Your task to perform on an android device: Show me popular games on the Play Store Image 0: 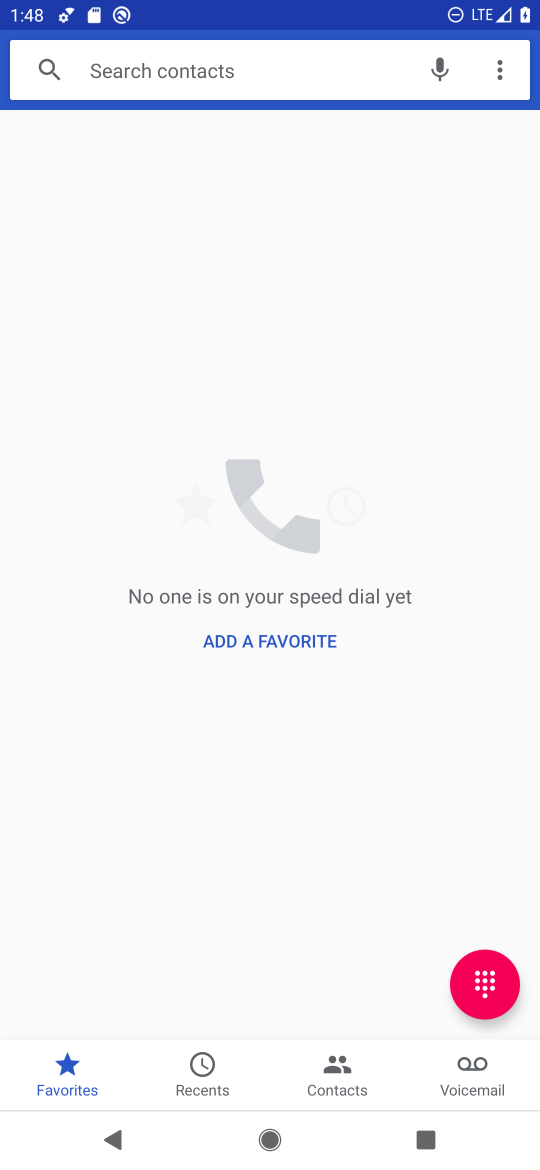
Step 0: press home button
Your task to perform on an android device: Show me popular games on the Play Store Image 1: 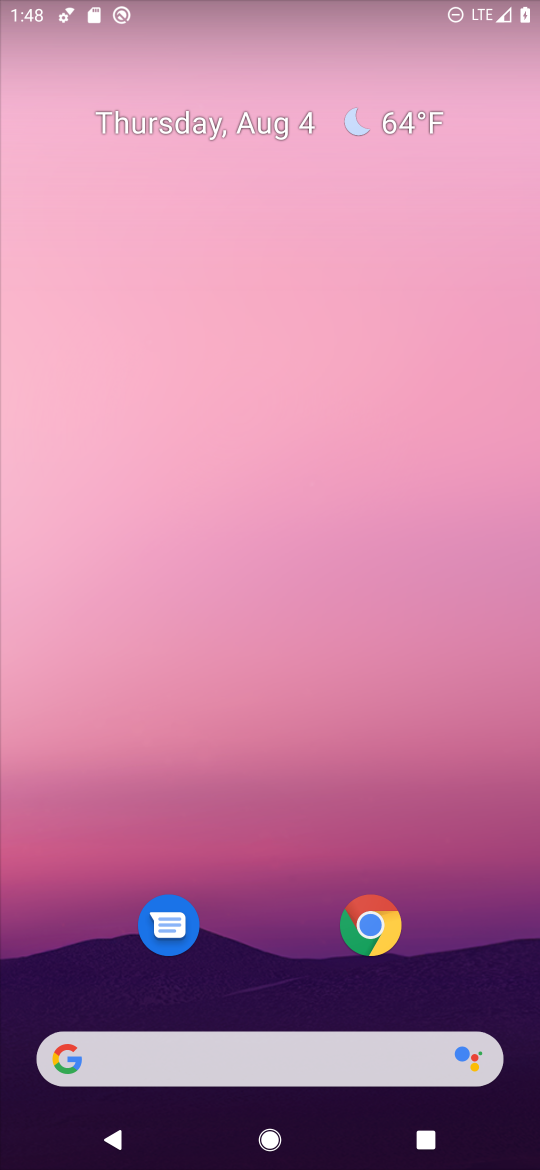
Step 1: drag from (238, 968) to (346, 162)
Your task to perform on an android device: Show me popular games on the Play Store Image 2: 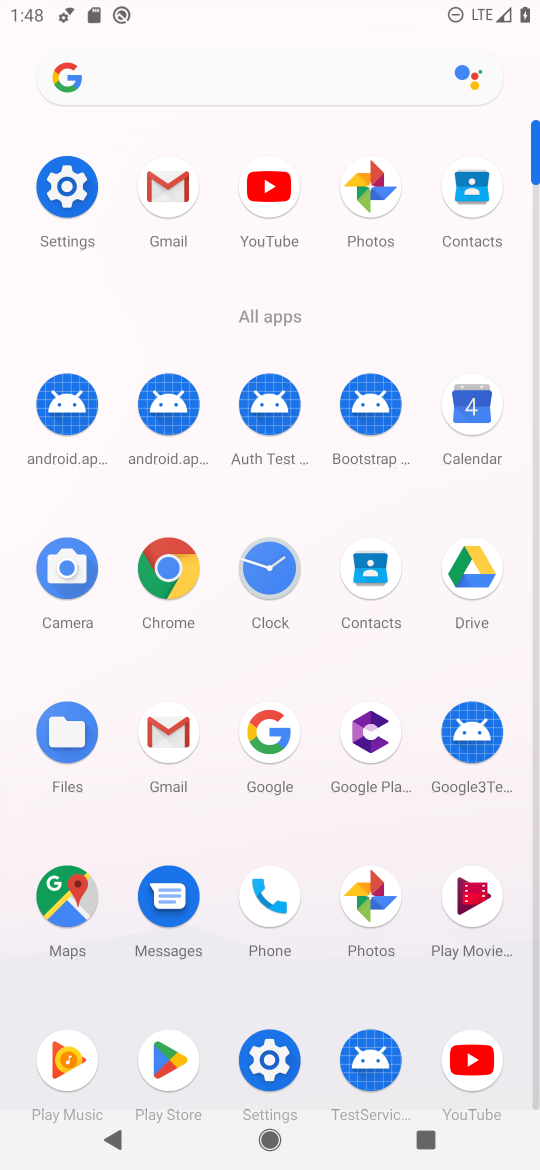
Step 2: click (150, 1050)
Your task to perform on an android device: Show me popular games on the Play Store Image 3: 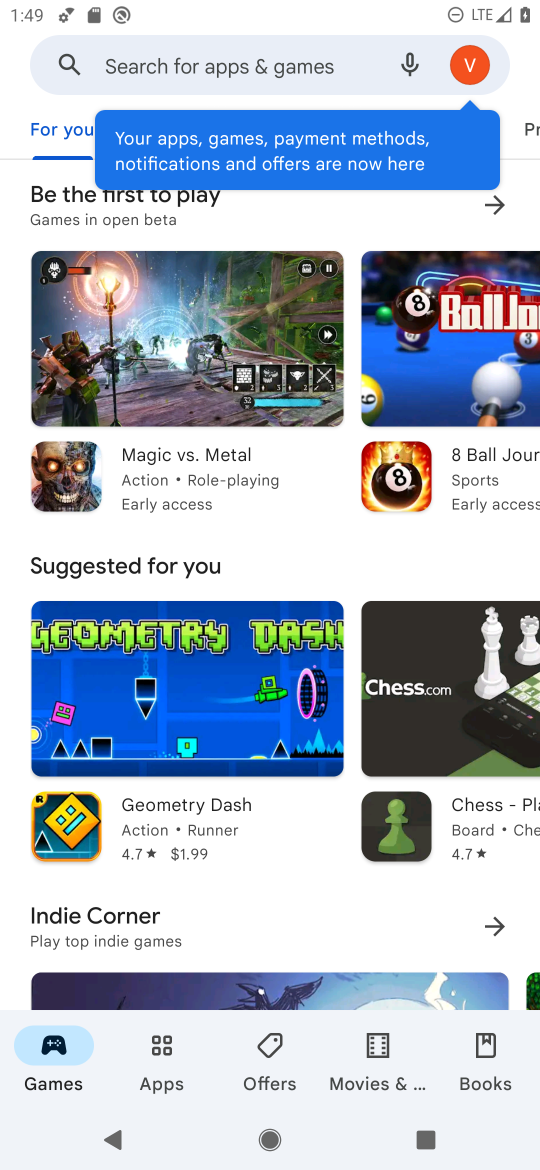
Step 3: click (159, 1049)
Your task to perform on an android device: Show me popular games on the Play Store Image 4: 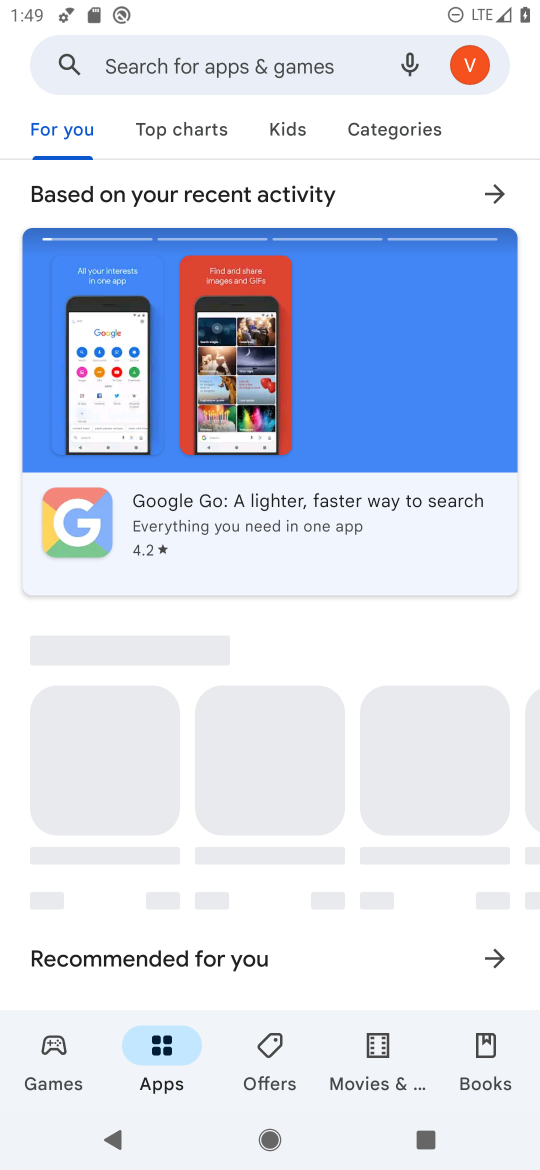
Step 4: click (55, 1046)
Your task to perform on an android device: Show me popular games on the Play Store Image 5: 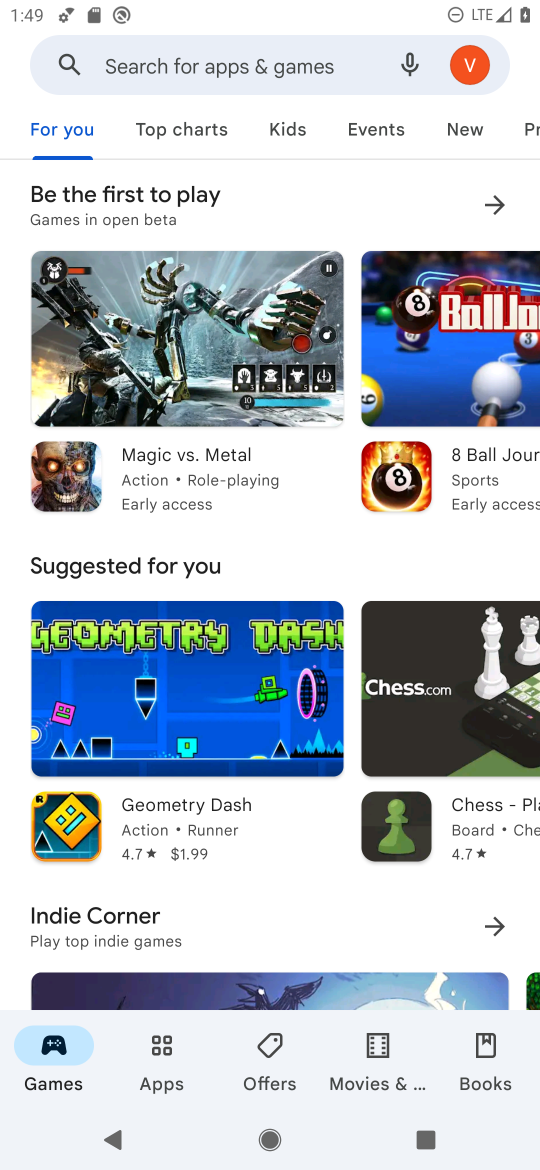
Step 5: drag from (499, 125) to (175, 155)
Your task to perform on an android device: Show me popular games on the Play Store Image 6: 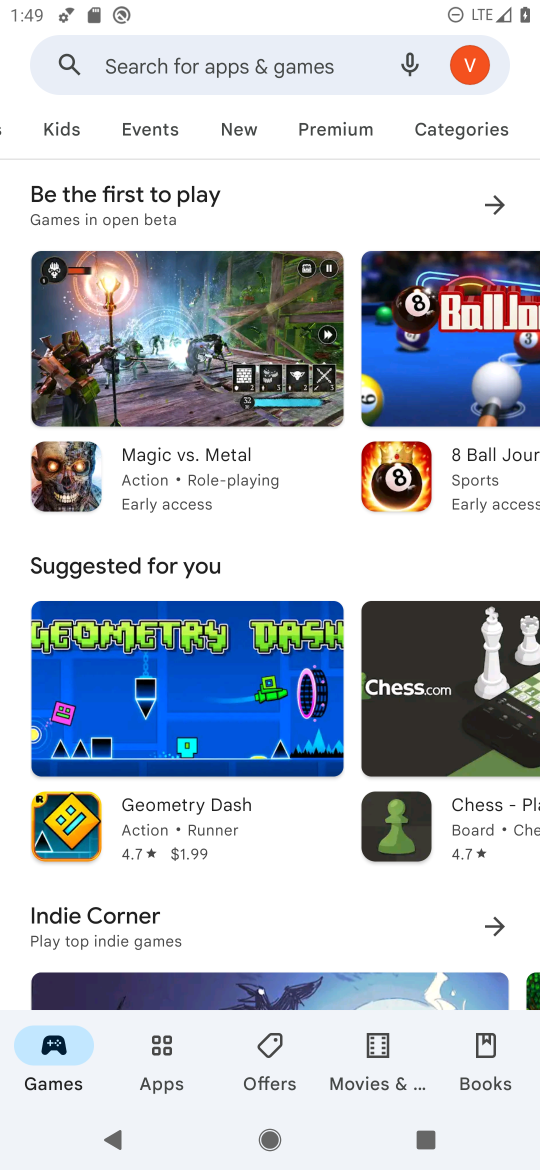
Step 6: drag from (460, 131) to (289, 123)
Your task to perform on an android device: Show me popular games on the Play Store Image 7: 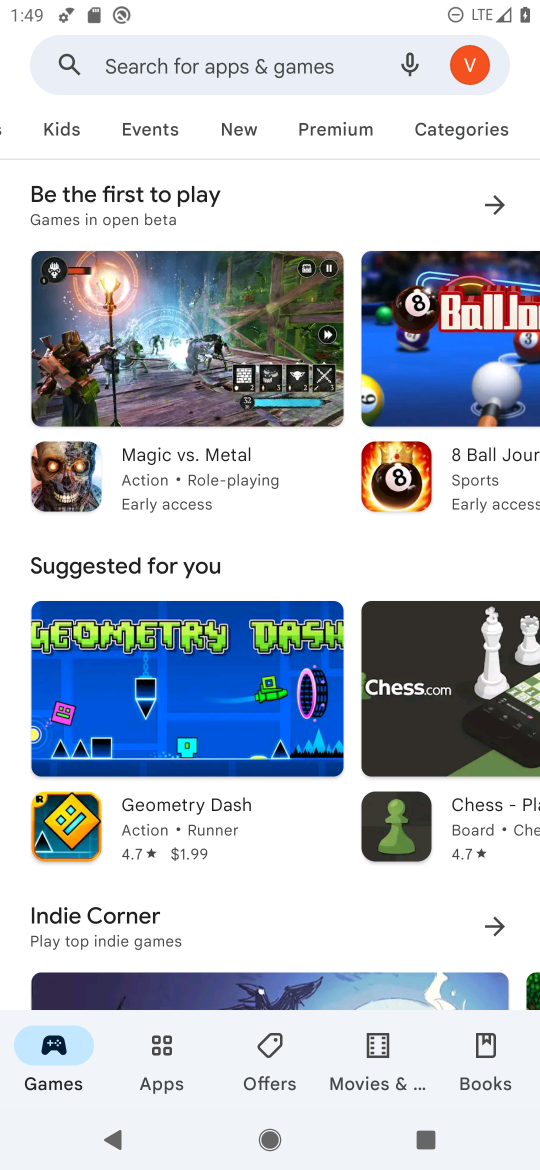
Step 7: click (429, 133)
Your task to perform on an android device: Show me popular games on the Play Store Image 8: 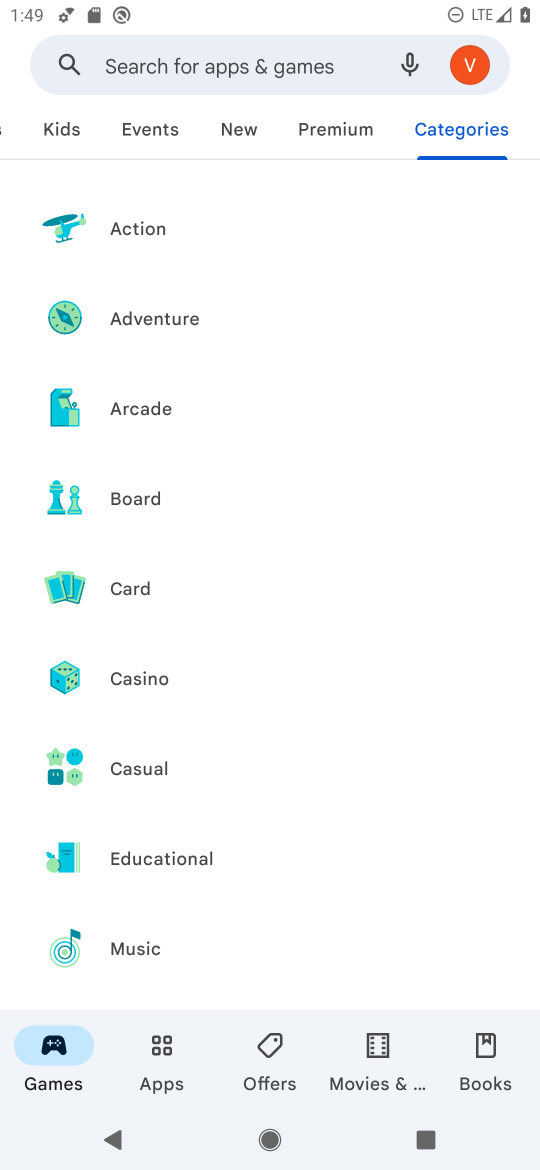
Step 8: drag from (228, 534) to (222, 0)
Your task to perform on an android device: Show me popular games on the Play Store Image 9: 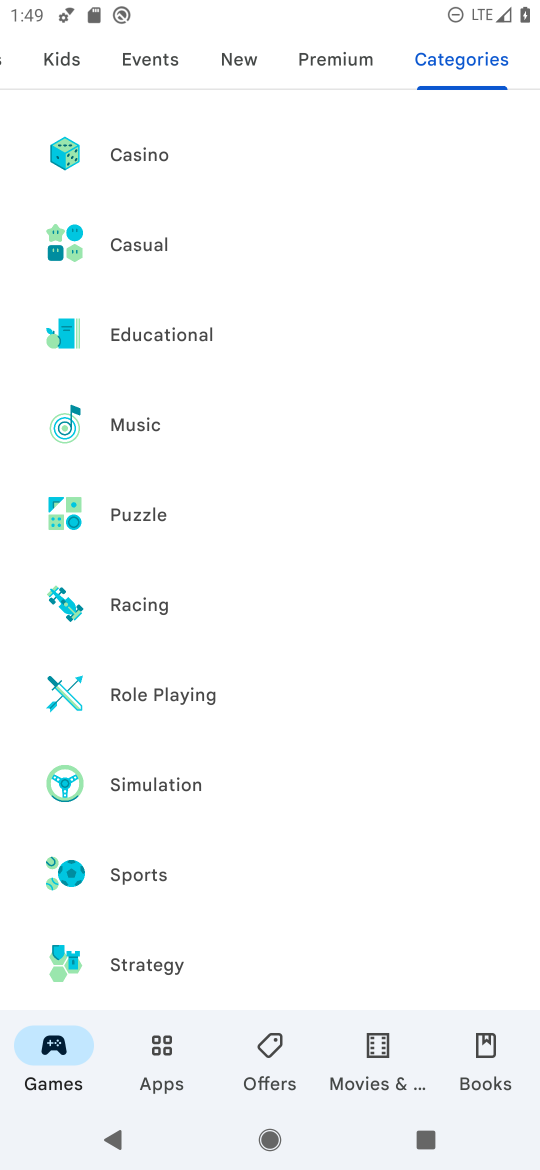
Step 9: drag from (322, 630) to (308, 53)
Your task to perform on an android device: Show me popular games on the Play Store Image 10: 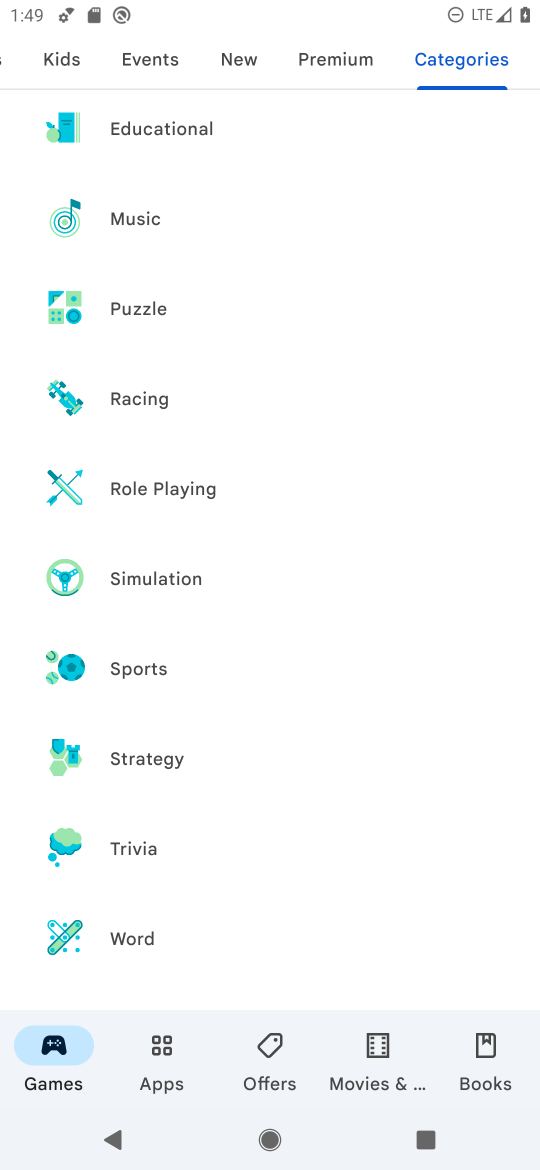
Step 10: drag from (224, 304) to (292, 1024)
Your task to perform on an android device: Show me popular games on the Play Store Image 11: 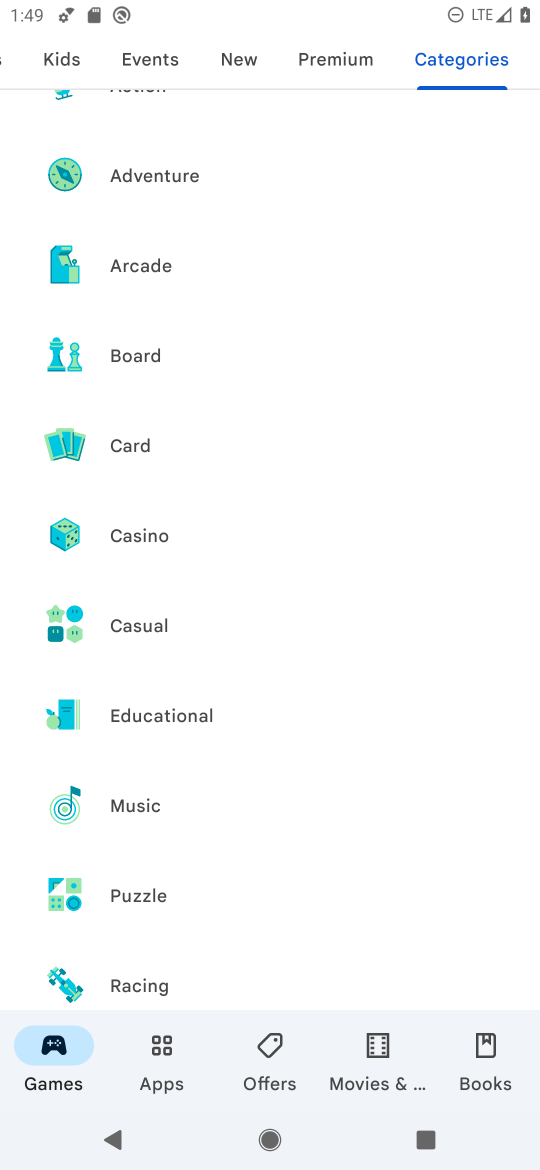
Step 11: drag from (110, 70) to (336, 21)
Your task to perform on an android device: Show me popular games on the Play Store Image 12: 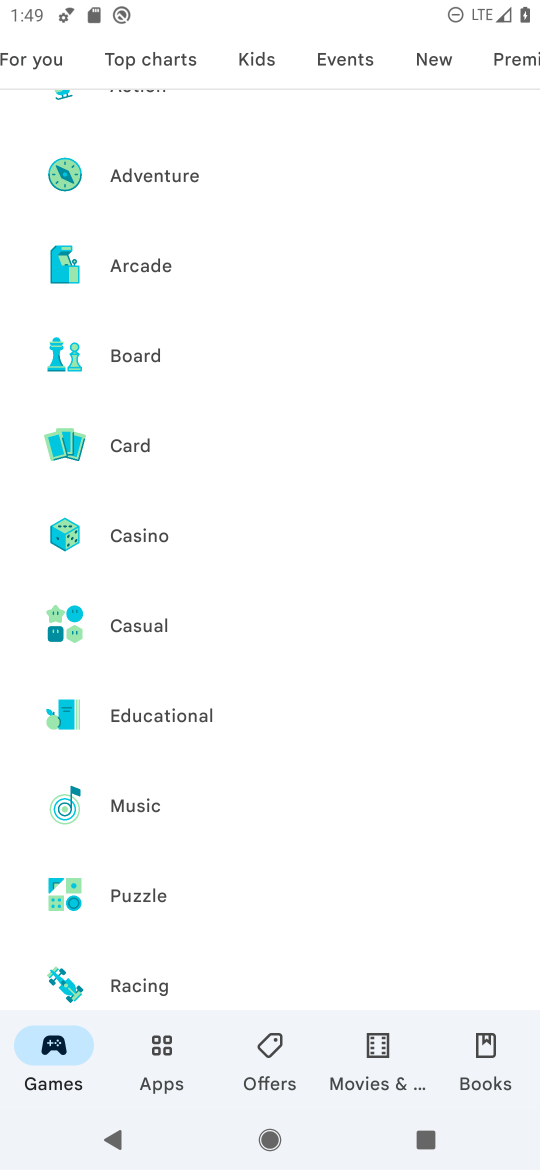
Step 12: click (194, 60)
Your task to perform on an android device: Show me popular games on the Play Store Image 13: 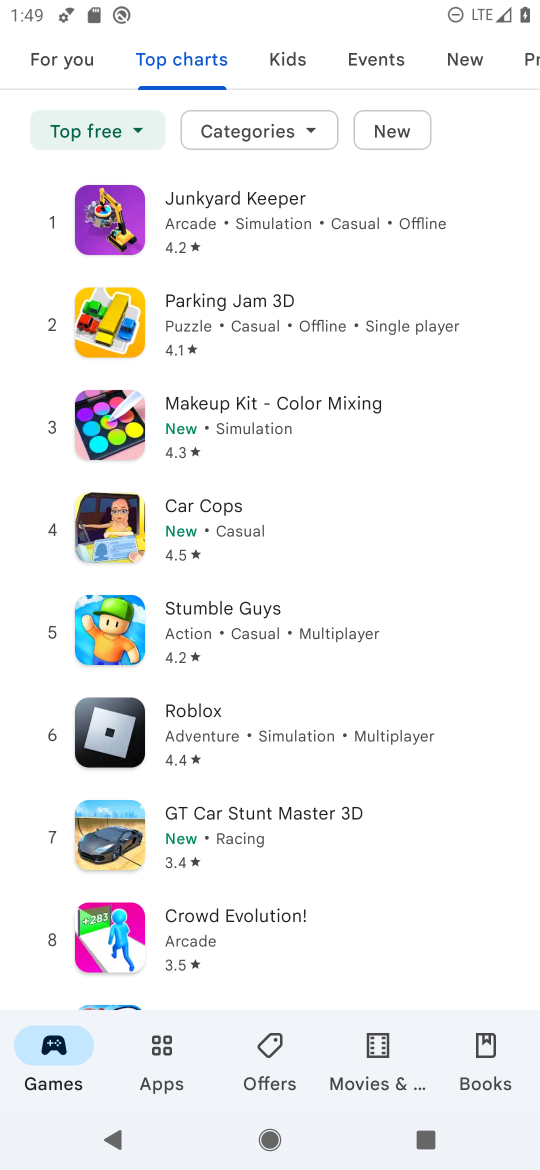
Step 13: click (307, 135)
Your task to perform on an android device: Show me popular games on the Play Store Image 14: 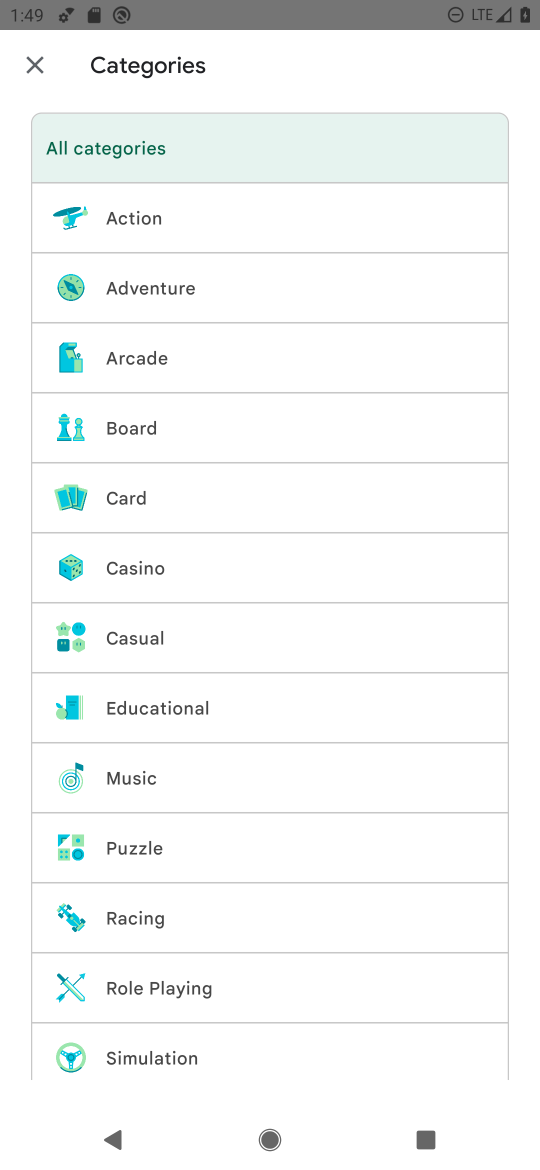
Step 14: task complete